Your task to perform on an android device: open the mobile data screen to see how much data has been used Image 0: 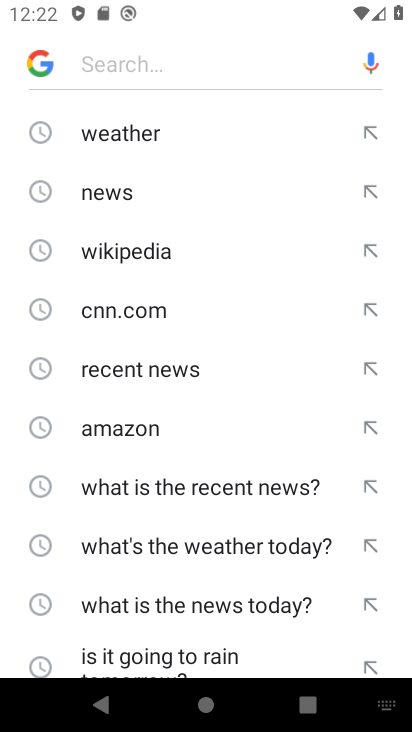
Step 0: press home button
Your task to perform on an android device: open the mobile data screen to see how much data has been used Image 1: 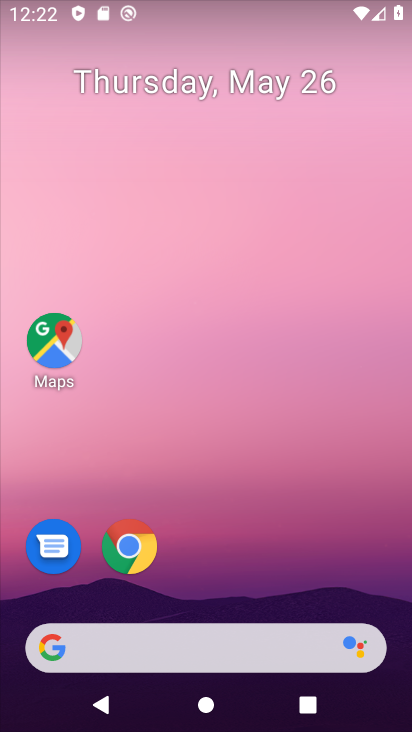
Step 1: drag from (389, 609) to (303, 26)
Your task to perform on an android device: open the mobile data screen to see how much data has been used Image 2: 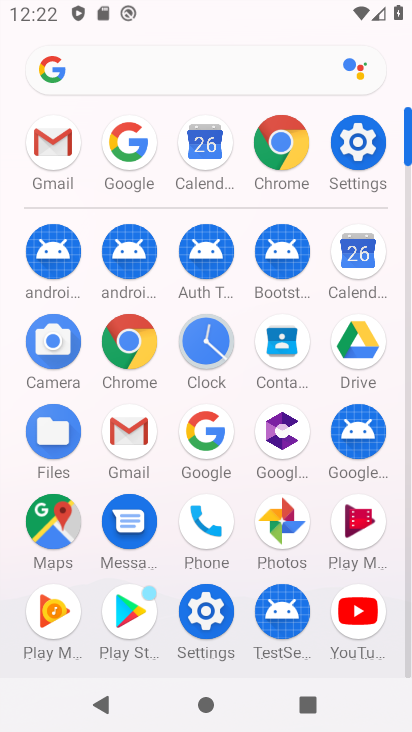
Step 2: click (187, 611)
Your task to perform on an android device: open the mobile data screen to see how much data has been used Image 3: 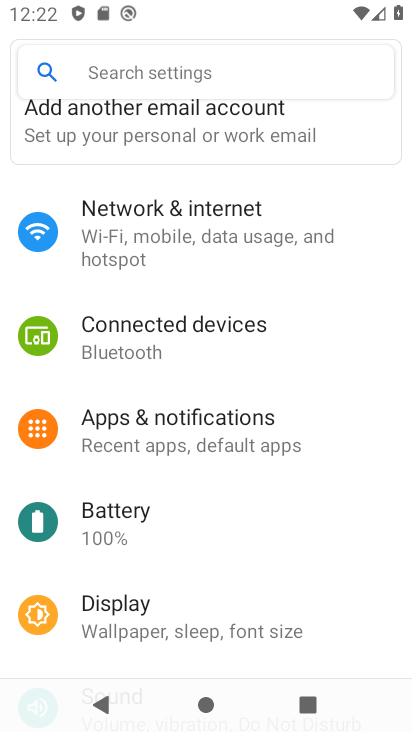
Step 3: click (183, 223)
Your task to perform on an android device: open the mobile data screen to see how much data has been used Image 4: 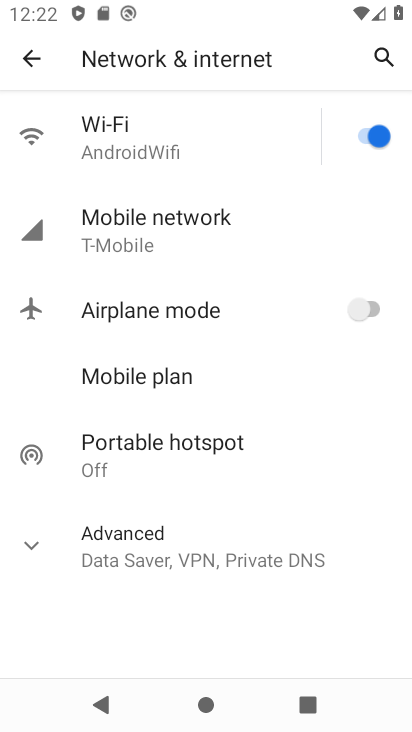
Step 4: click (183, 223)
Your task to perform on an android device: open the mobile data screen to see how much data has been used Image 5: 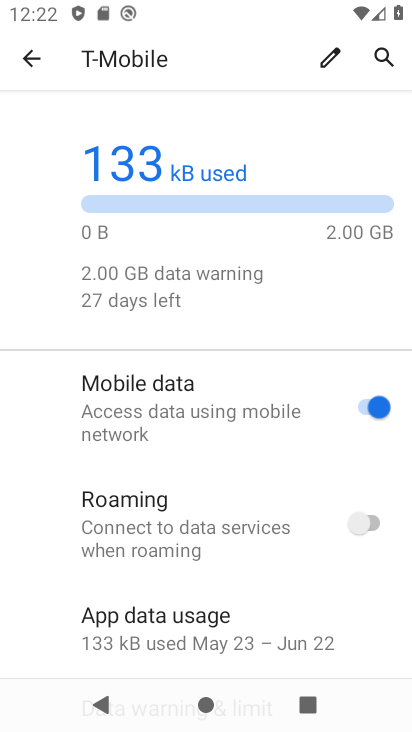
Step 5: click (161, 624)
Your task to perform on an android device: open the mobile data screen to see how much data has been used Image 6: 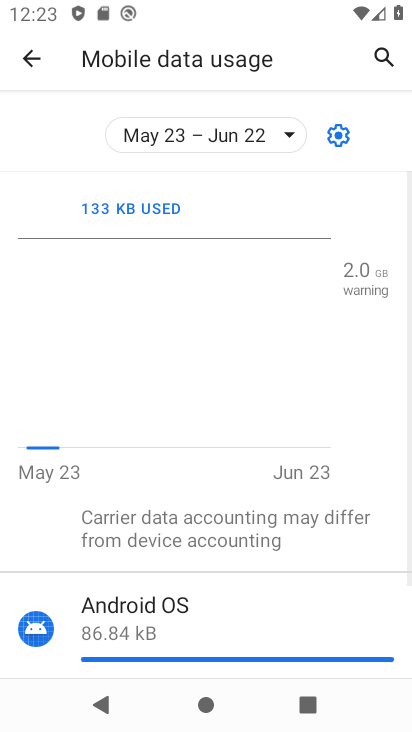
Step 6: task complete